Your task to perform on an android device: Open notification settings Image 0: 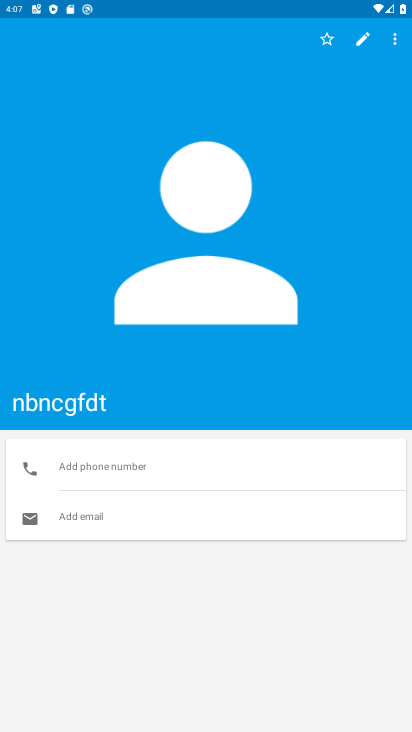
Step 0: press home button
Your task to perform on an android device: Open notification settings Image 1: 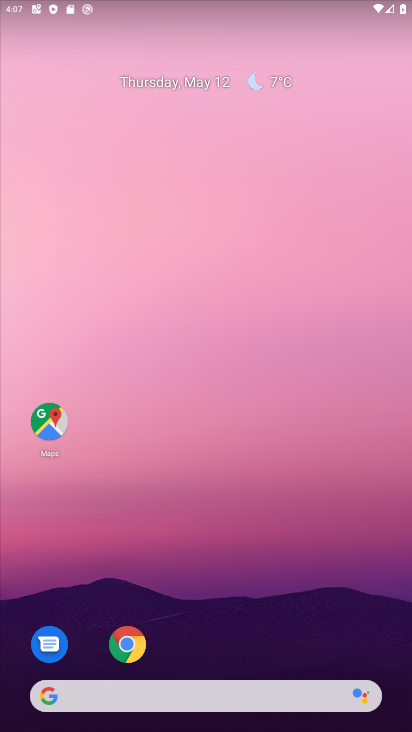
Step 1: drag from (222, 660) to (255, 131)
Your task to perform on an android device: Open notification settings Image 2: 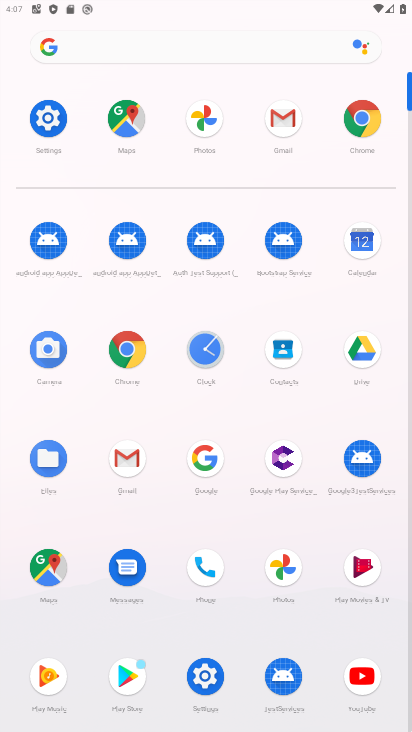
Step 2: click (47, 120)
Your task to perform on an android device: Open notification settings Image 3: 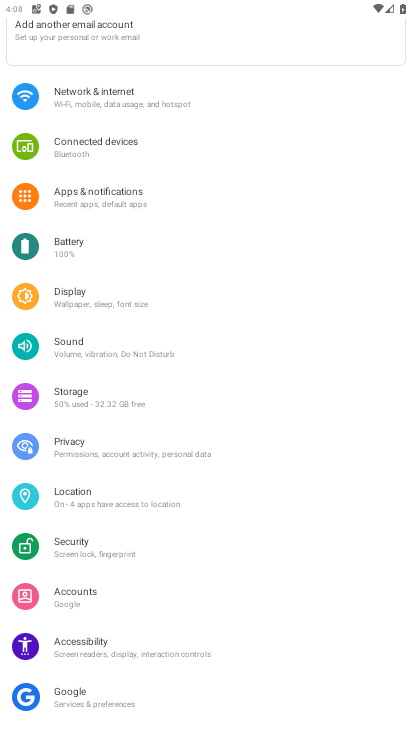
Step 3: click (145, 197)
Your task to perform on an android device: Open notification settings Image 4: 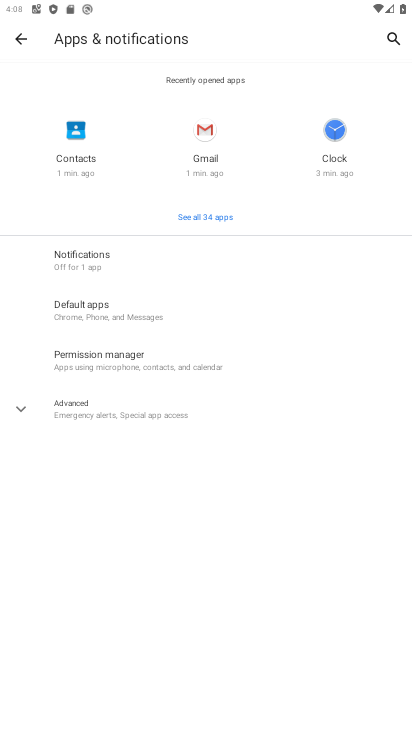
Step 4: click (112, 256)
Your task to perform on an android device: Open notification settings Image 5: 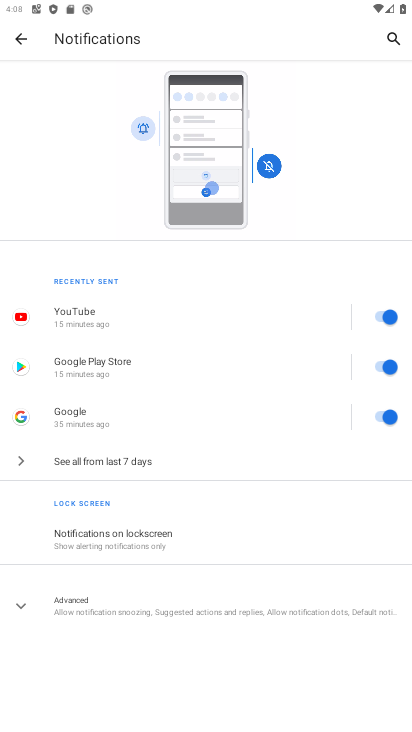
Step 5: task complete